Your task to perform on an android device: Set the phone to "Do not disturb". Image 0: 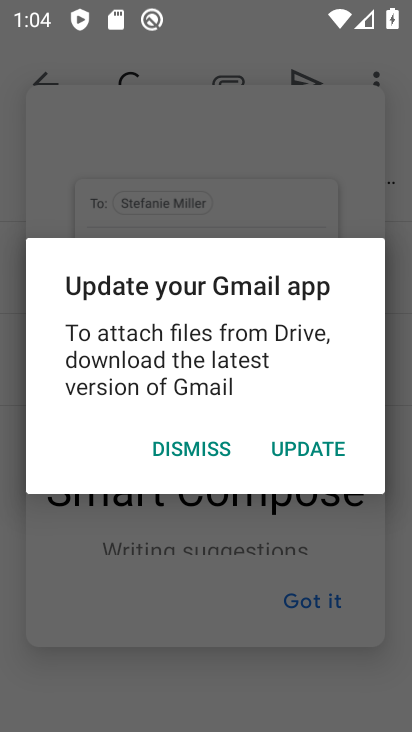
Step 0: press home button
Your task to perform on an android device: Set the phone to "Do not disturb". Image 1: 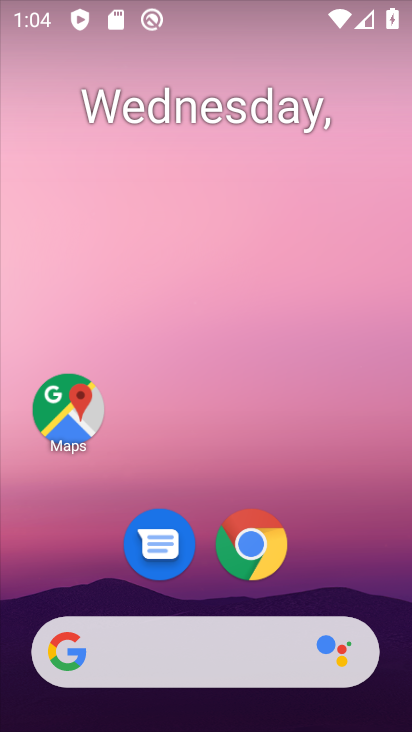
Step 1: drag from (313, 561) to (312, 72)
Your task to perform on an android device: Set the phone to "Do not disturb". Image 2: 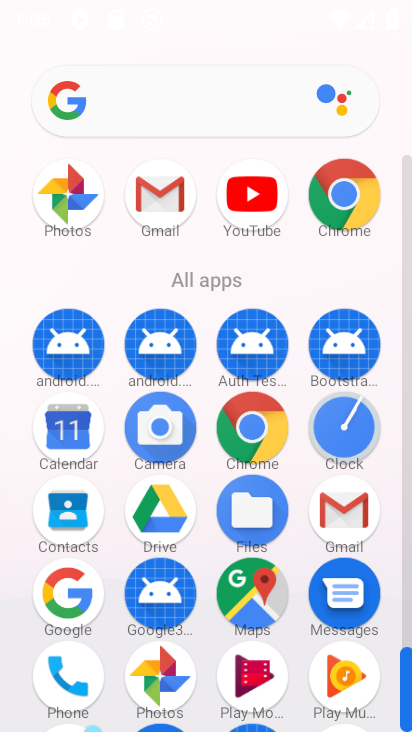
Step 2: drag from (208, 460) to (215, 220)
Your task to perform on an android device: Set the phone to "Do not disturb". Image 3: 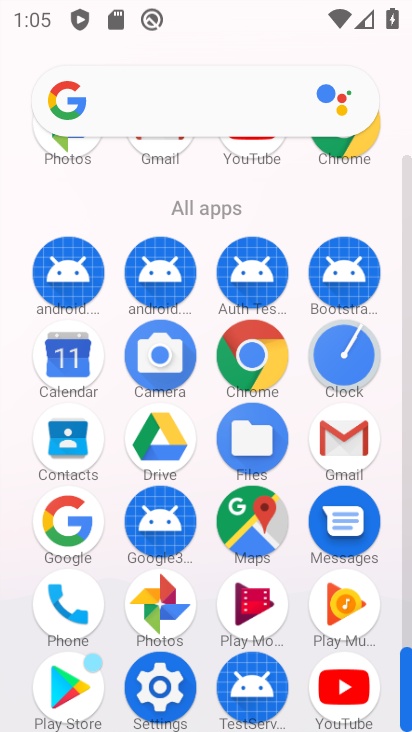
Step 3: click (141, 683)
Your task to perform on an android device: Set the phone to "Do not disturb". Image 4: 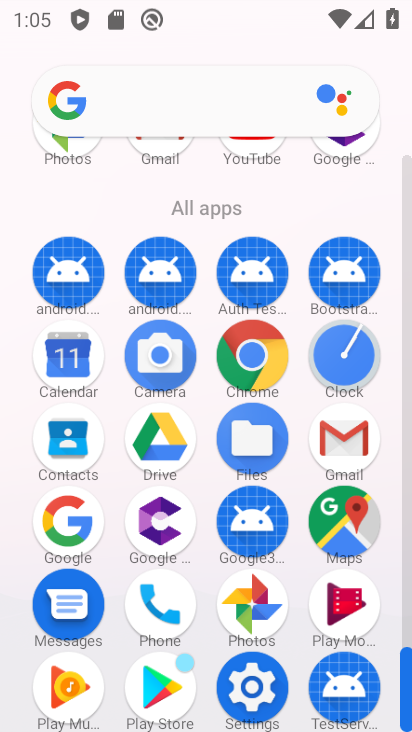
Step 4: click (251, 684)
Your task to perform on an android device: Set the phone to "Do not disturb". Image 5: 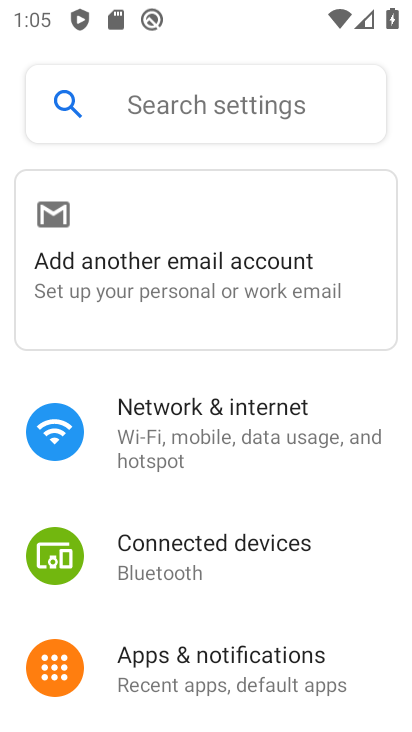
Step 5: drag from (218, 668) to (197, 482)
Your task to perform on an android device: Set the phone to "Do not disturb". Image 6: 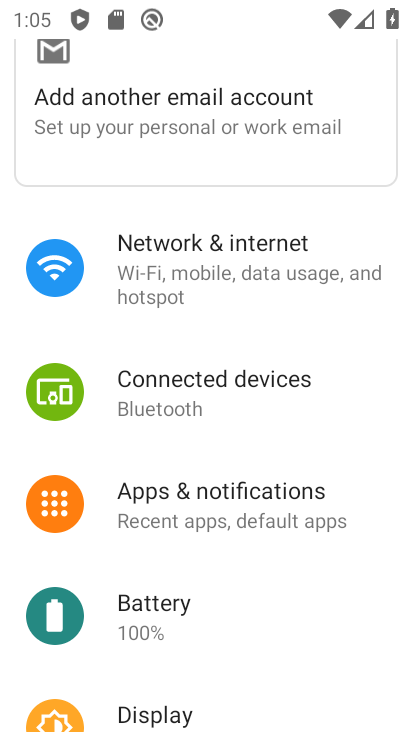
Step 6: drag from (183, 620) to (185, 449)
Your task to perform on an android device: Set the phone to "Do not disturb". Image 7: 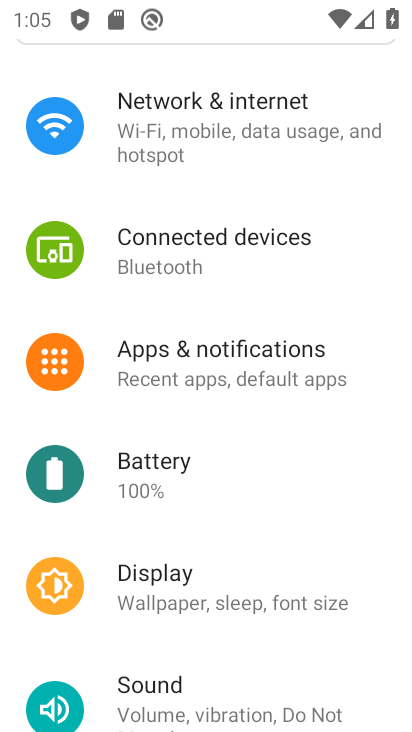
Step 7: drag from (205, 594) to (232, 275)
Your task to perform on an android device: Set the phone to "Do not disturb". Image 8: 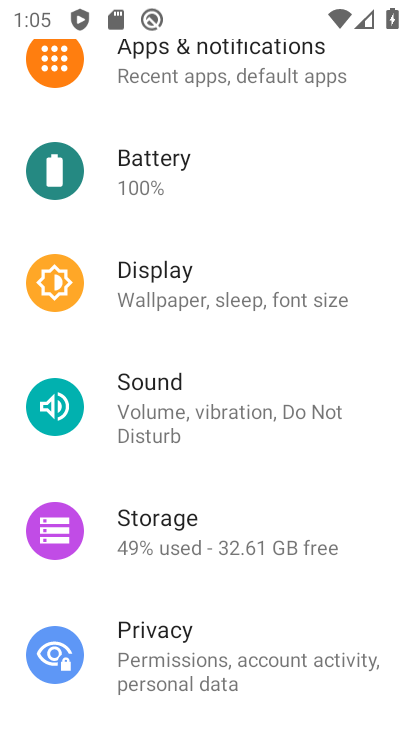
Step 8: click (248, 406)
Your task to perform on an android device: Set the phone to "Do not disturb". Image 9: 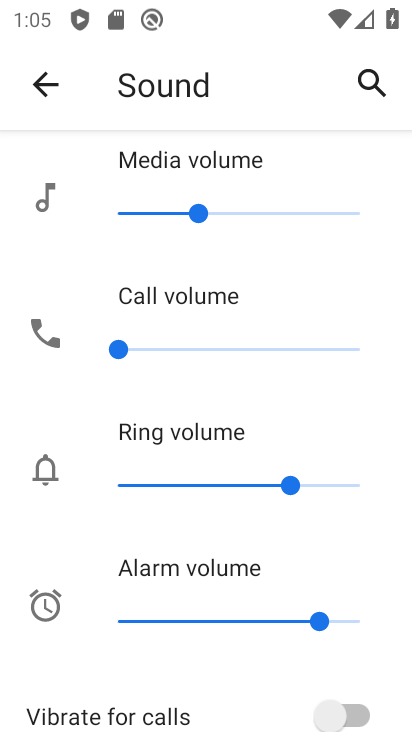
Step 9: drag from (203, 593) to (210, 352)
Your task to perform on an android device: Set the phone to "Do not disturb". Image 10: 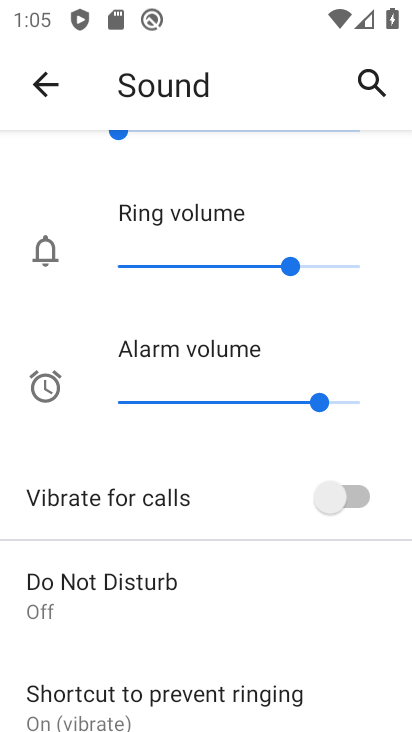
Step 10: drag from (233, 603) to (223, 387)
Your task to perform on an android device: Set the phone to "Do not disturb". Image 11: 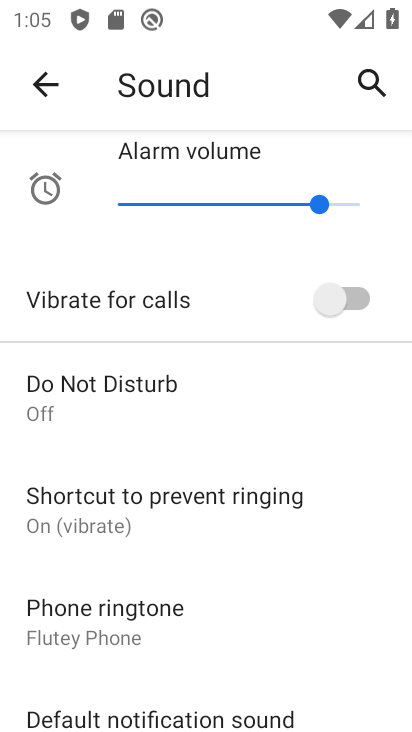
Step 11: click (177, 389)
Your task to perform on an android device: Set the phone to "Do not disturb". Image 12: 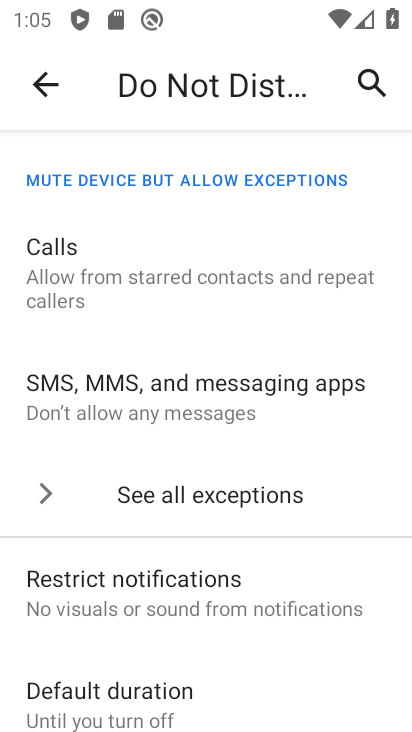
Step 12: drag from (233, 623) to (225, 295)
Your task to perform on an android device: Set the phone to "Do not disturb". Image 13: 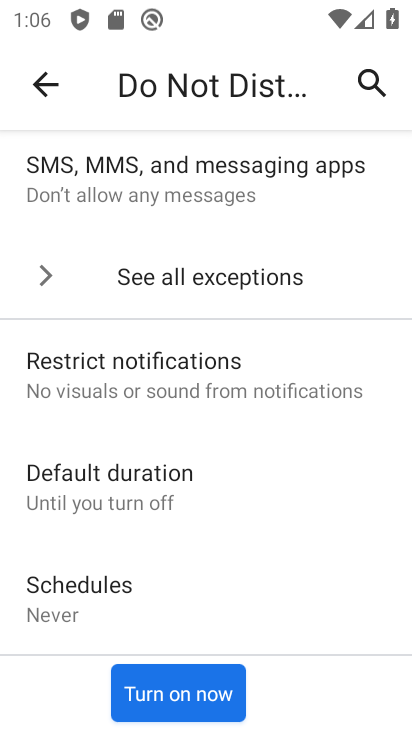
Step 13: click (173, 692)
Your task to perform on an android device: Set the phone to "Do not disturb". Image 14: 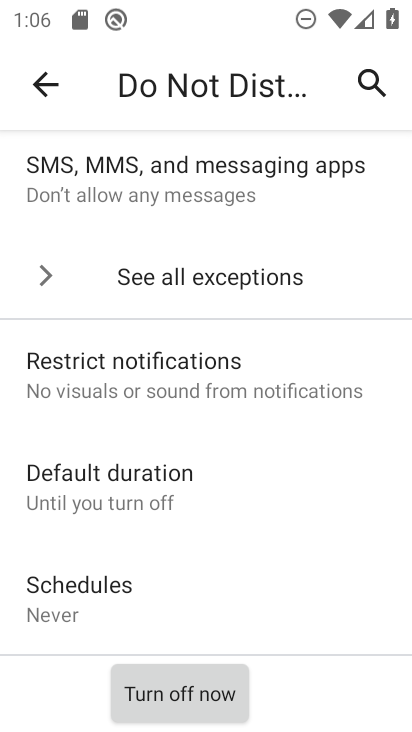
Step 14: task complete